Your task to perform on an android device: set the timer Image 0: 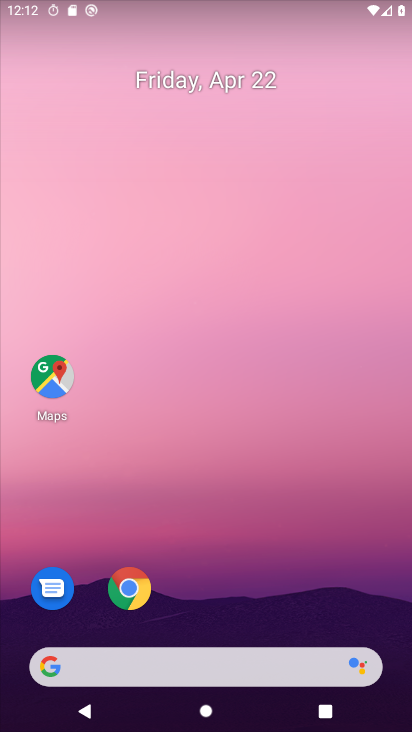
Step 0: drag from (307, 586) to (306, 112)
Your task to perform on an android device: set the timer Image 1: 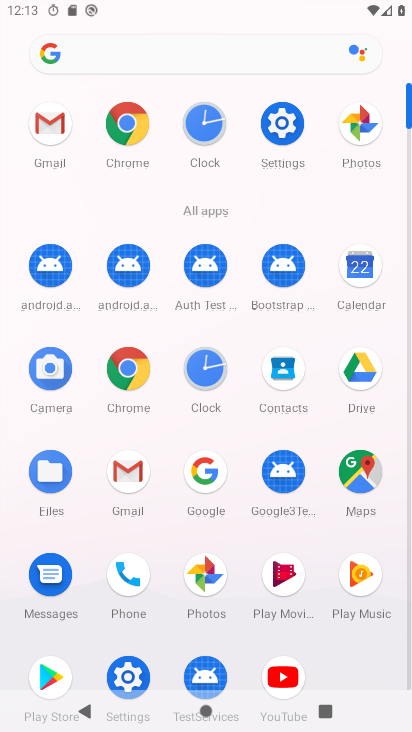
Step 1: click (204, 374)
Your task to perform on an android device: set the timer Image 2: 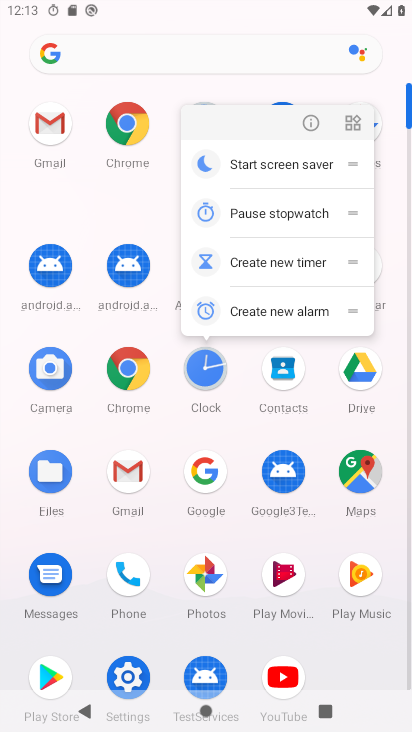
Step 2: click (204, 374)
Your task to perform on an android device: set the timer Image 3: 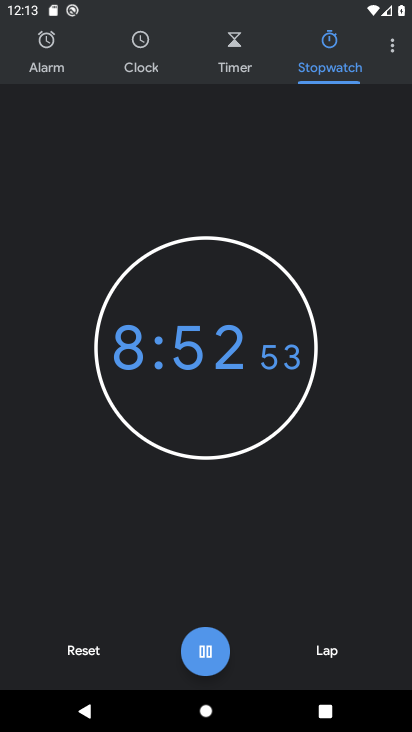
Step 3: click (234, 57)
Your task to perform on an android device: set the timer Image 4: 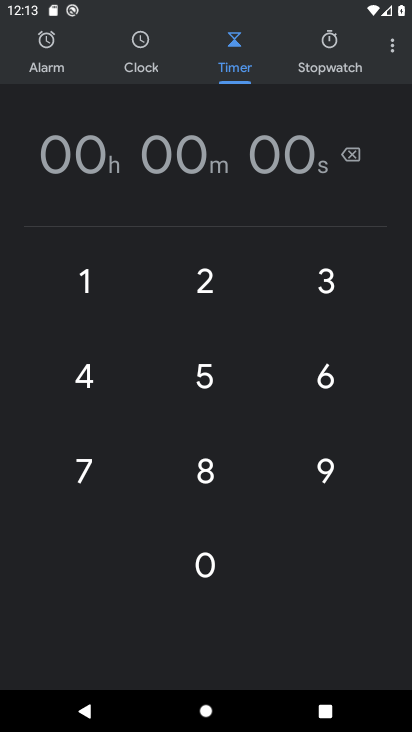
Step 4: click (207, 275)
Your task to perform on an android device: set the timer Image 5: 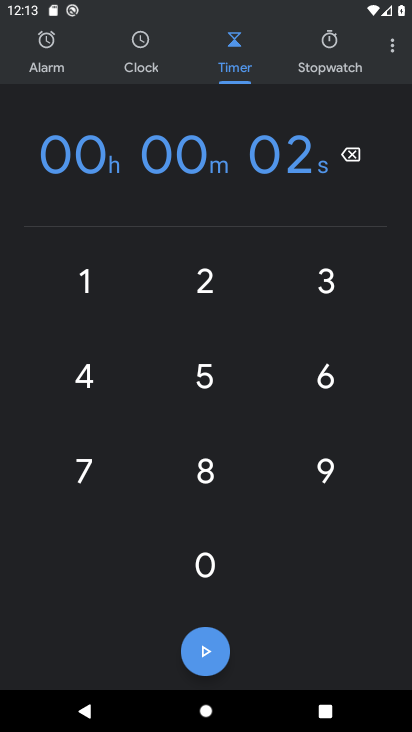
Step 5: click (220, 359)
Your task to perform on an android device: set the timer Image 6: 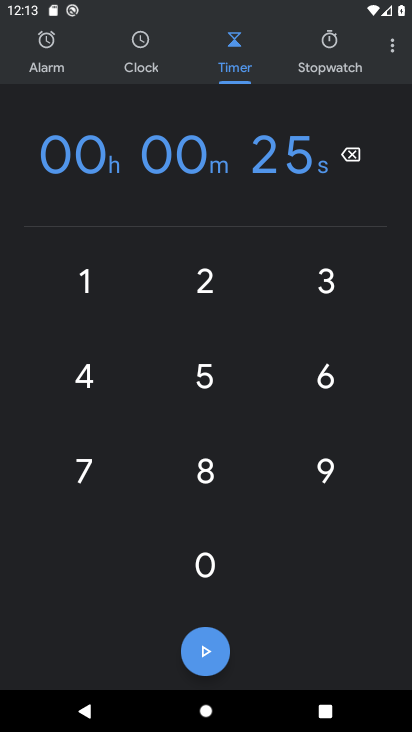
Step 6: click (215, 469)
Your task to perform on an android device: set the timer Image 7: 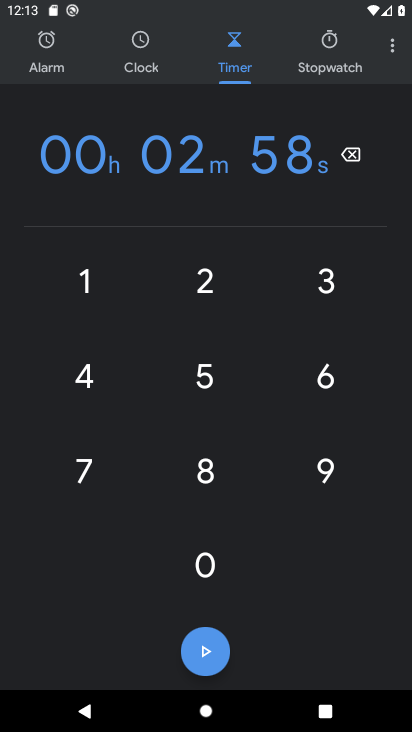
Step 7: click (225, 542)
Your task to perform on an android device: set the timer Image 8: 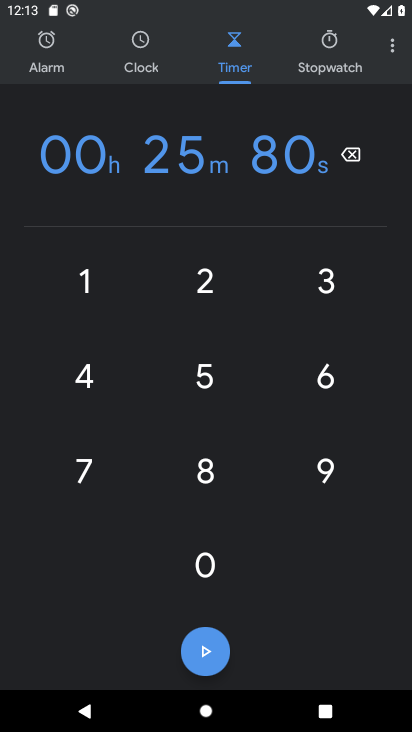
Step 8: click (225, 270)
Your task to perform on an android device: set the timer Image 9: 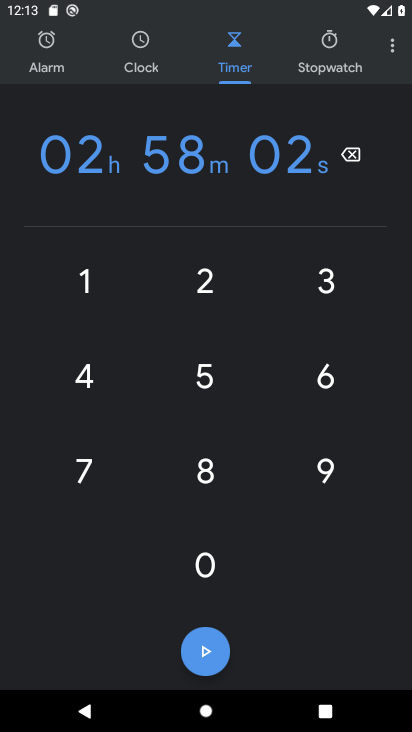
Step 9: click (236, 336)
Your task to perform on an android device: set the timer Image 10: 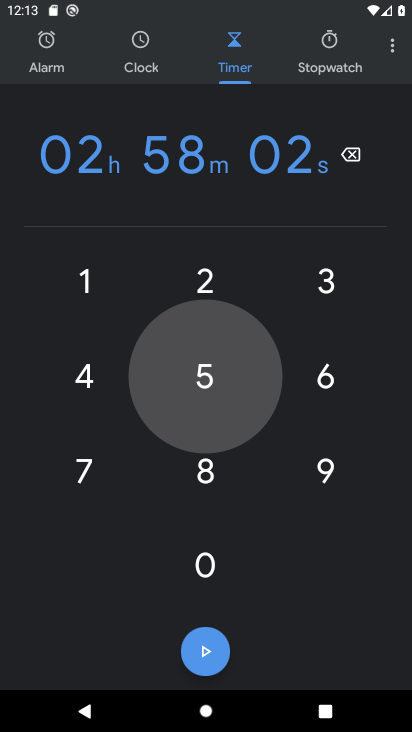
Step 10: click (237, 369)
Your task to perform on an android device: set the timer Image 11: 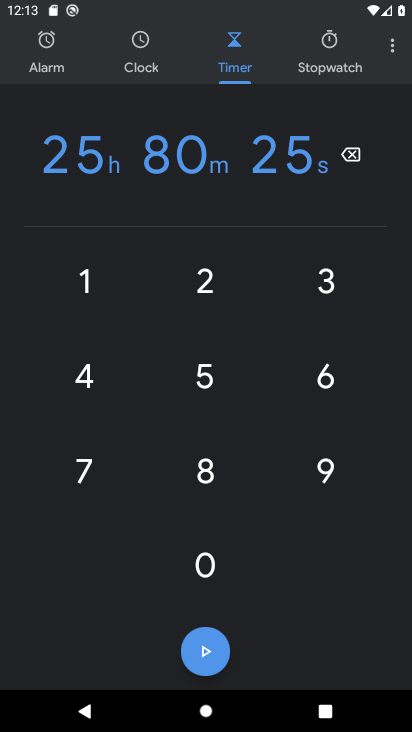
Step 11: click (211, 649)
Your task to perform on an android device: set the timer Image 12: 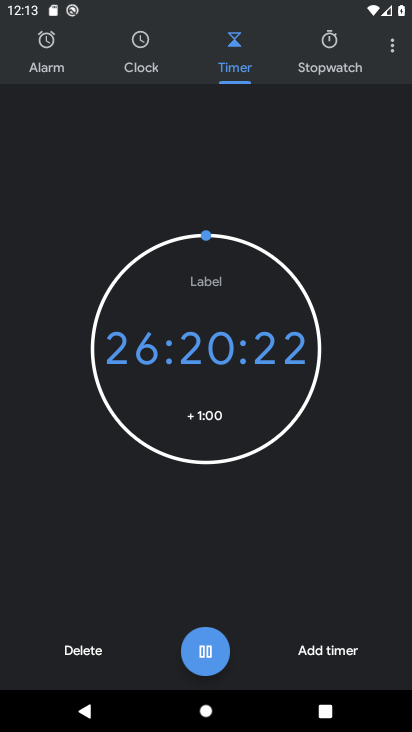
Step 12: task complete